Your task to perform on an android device: see tabs open on other devices in the chrome app Image 0: 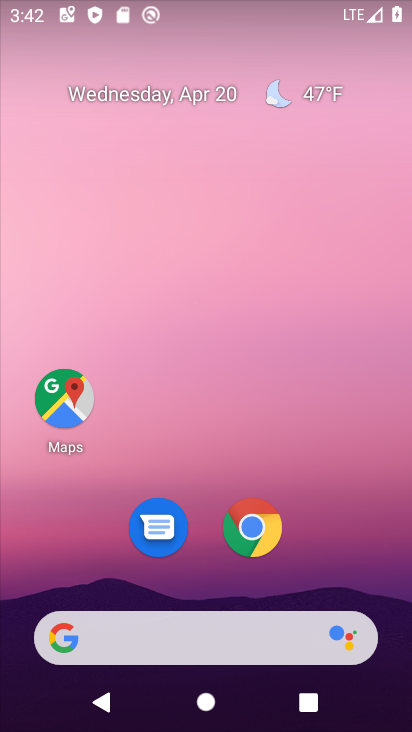
Step 0: click (253, 545)
Your task to perform on an android device: see tabs open on other devices in the chrome app Image 1: 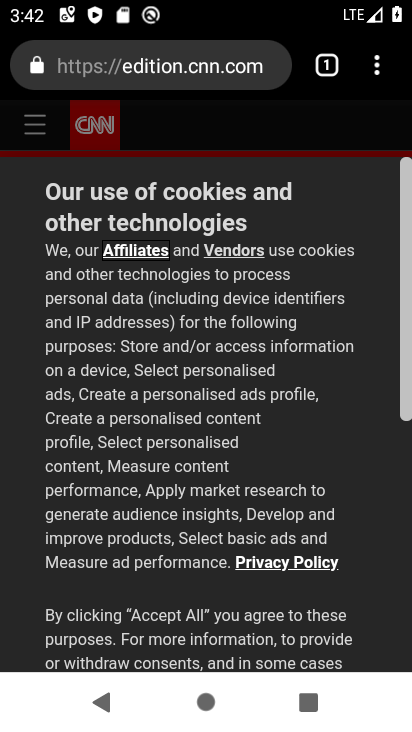
Step 1: click (331, 64)
Your task to perform on an android device: see tabs open on other devices in the chrome app Image 2: 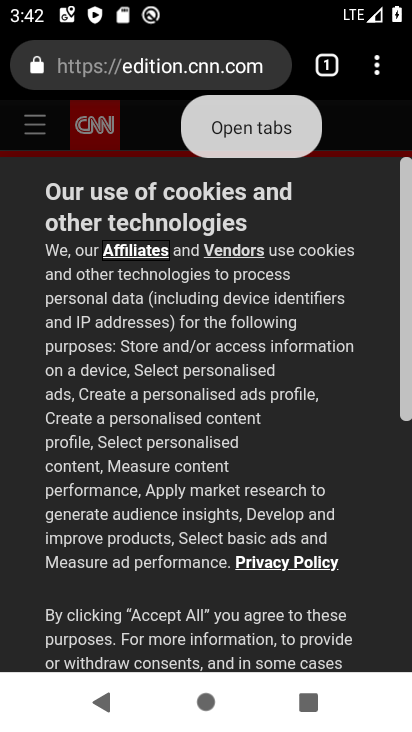
Step 2: click (325, 72)
Your task to perform on an android device: see tabs open on other devices in the chrome app Image 3: 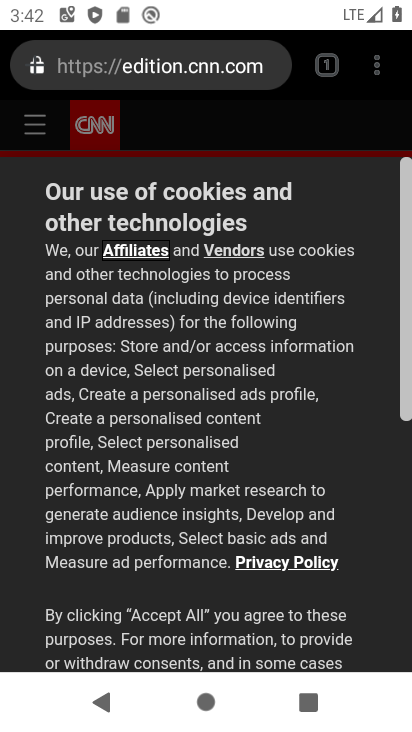
Step 3: click (375, 75)
Your task to perform on an android device: see tabs open on other devices in the chrome app Image 4: 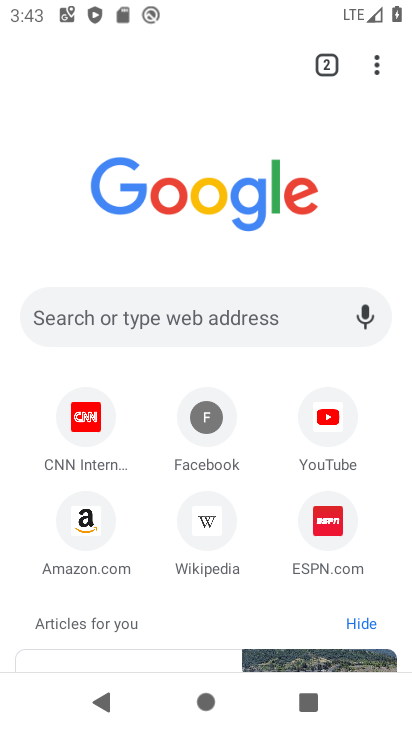
Step 4: click (327, 63)
Your task to perform on an android device: see tabs open on other devices in the chrome app Image 5: 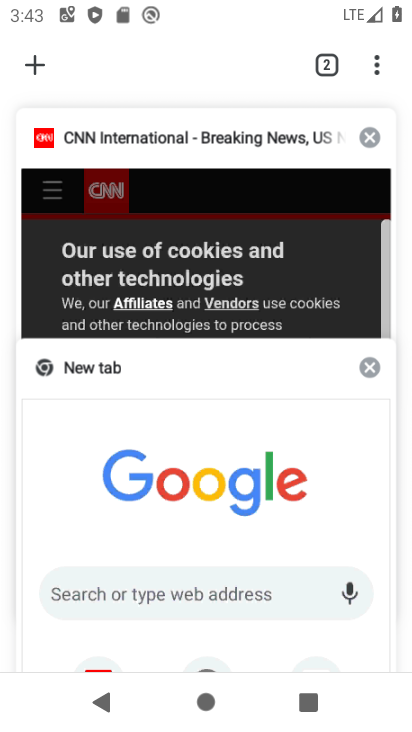
Step 5: task complete